Your task to perform on an android device: turn on the 24-hour format for clock Image 0: 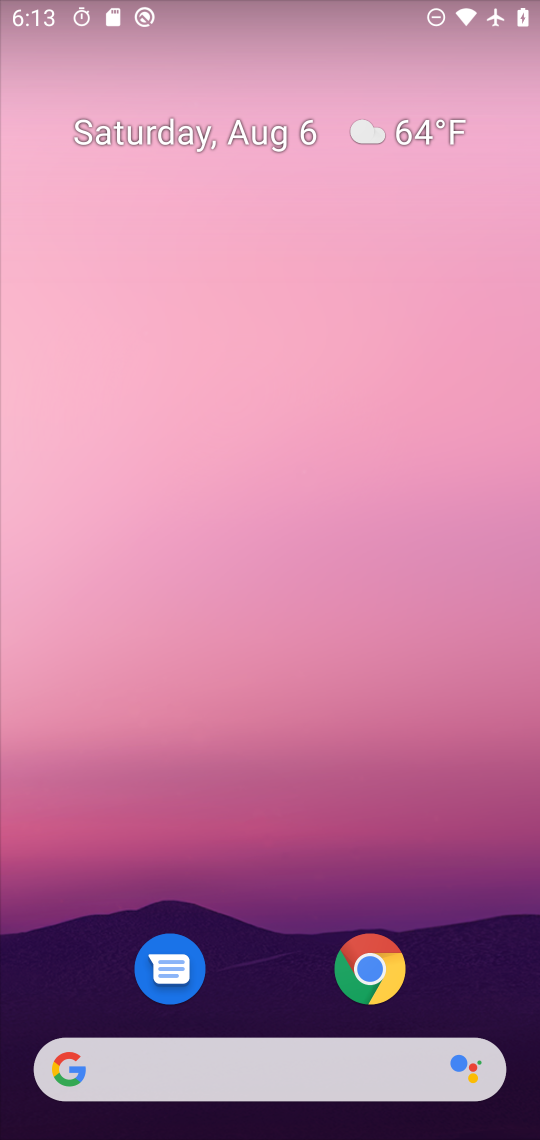
Step 0: press home button
Your task to perform on an android device: turn on the 24-hour format for clock Image 1: 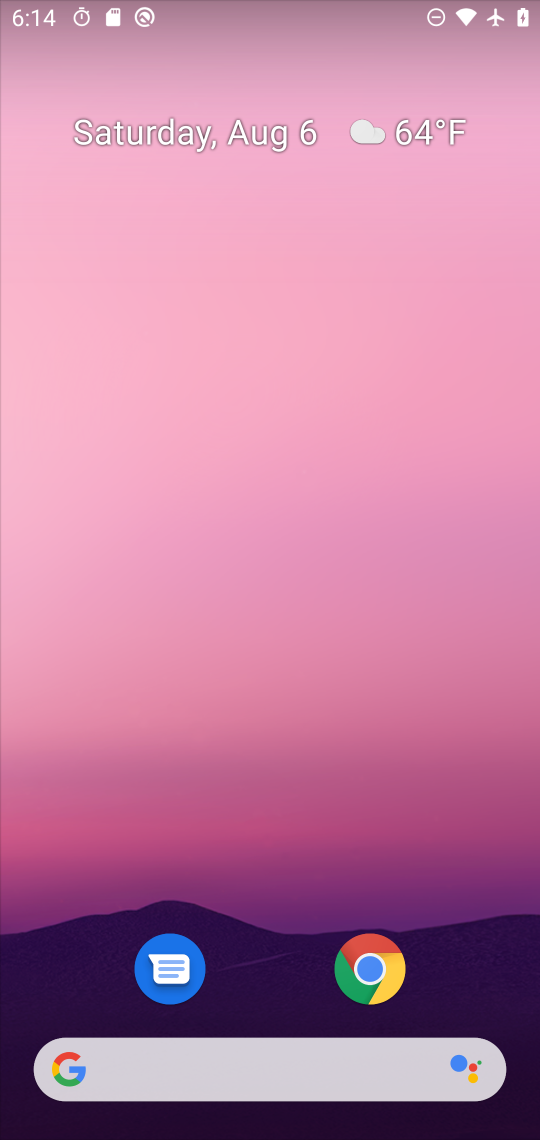
Step 1: press home button
Your task to perform on an android device: turn on the 24-hour format for clock Image 2: 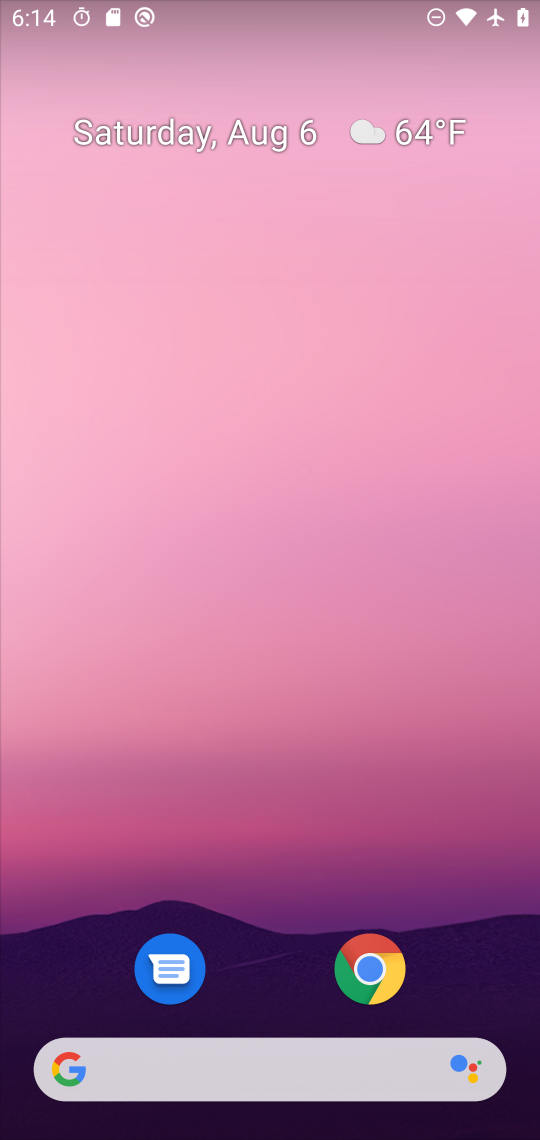
Step 2: drag from (314, 990) to (139, 137)
Your task to perform on an android device: turn on the 24-hour format for clock Image 3: 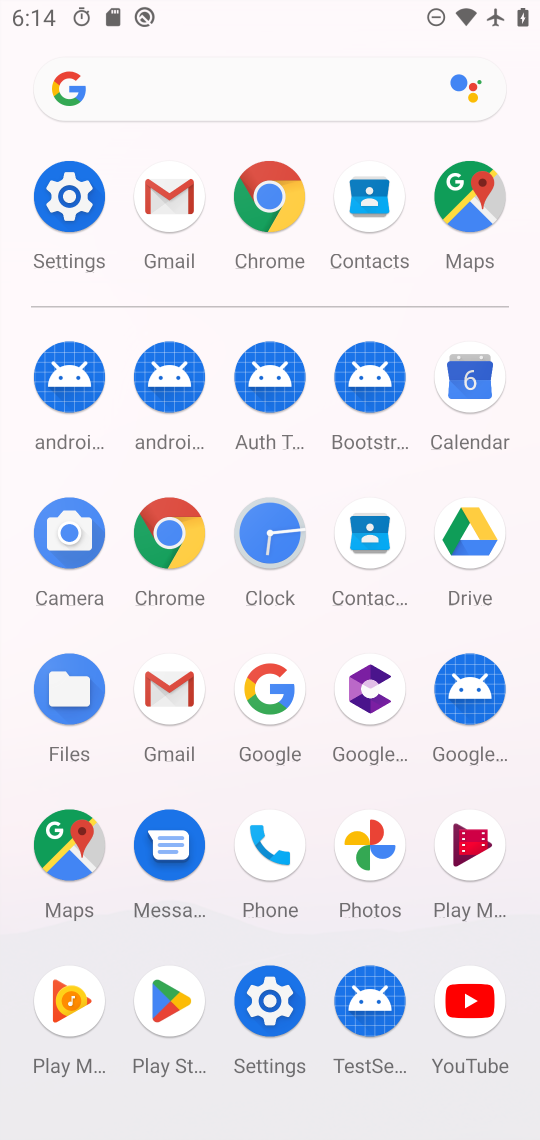
Step 3: click (69, 204)
Your task to perform on an android device: turn on the 24-hour format for clock Image 4: 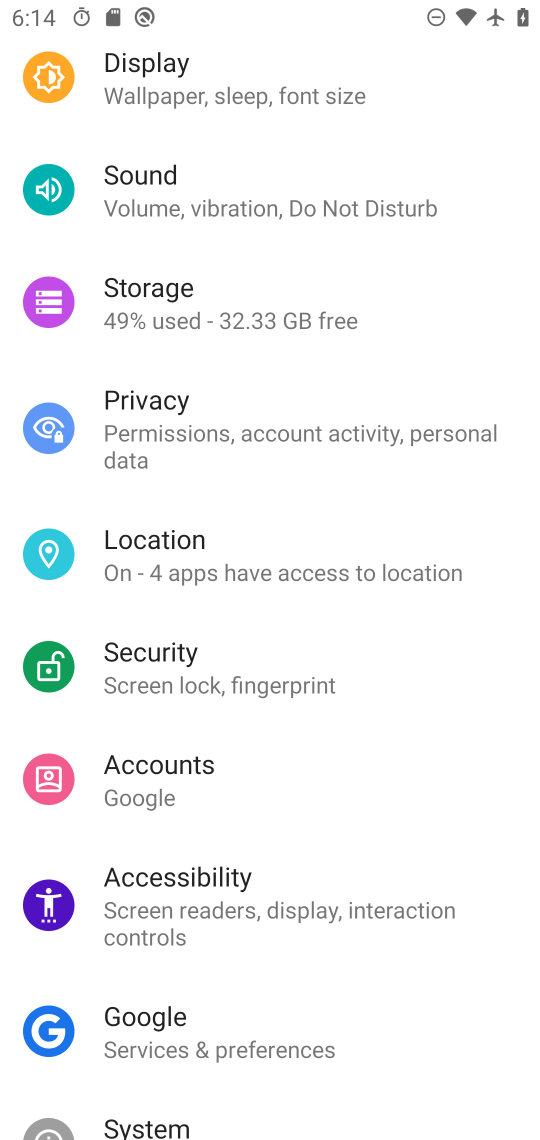
Step 4: click (143, 1128)
Your task to perform on an android device: turn on the 24-hour format for clock Image 5: 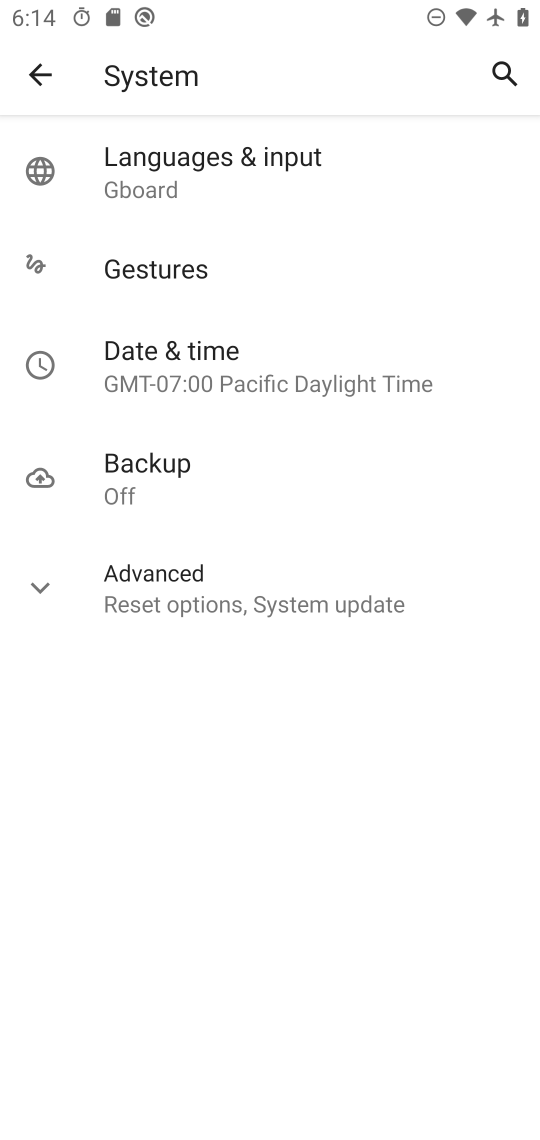
Step 5: click (194, 370)
Your task to perform on an android device: turn on the 24-hour format for clock Image 6: 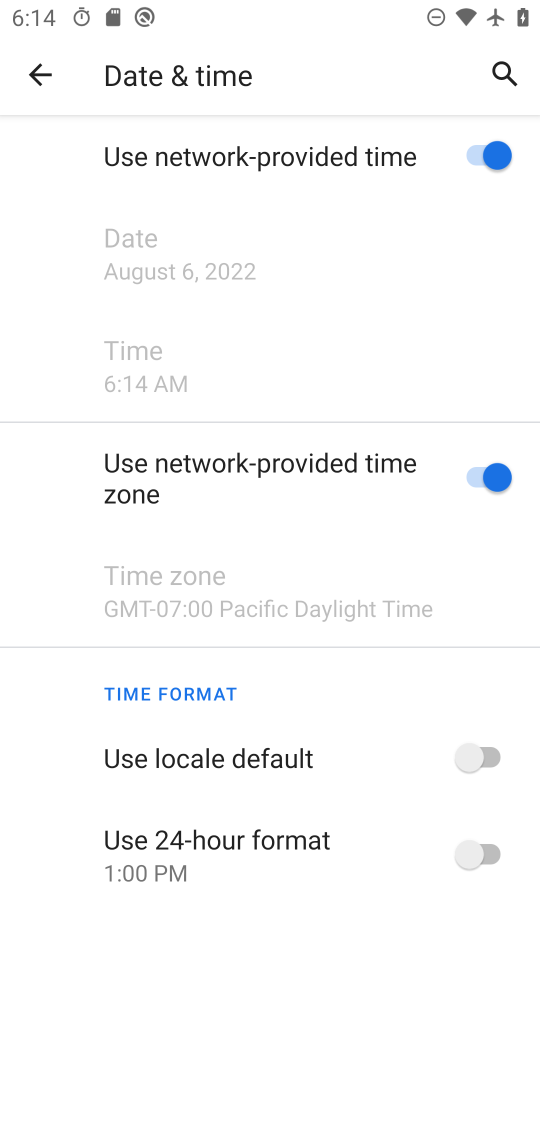
Step 6: click (470, 764)
Your task to perform on an android device: turn on the 24-hour format for clock Image 7: 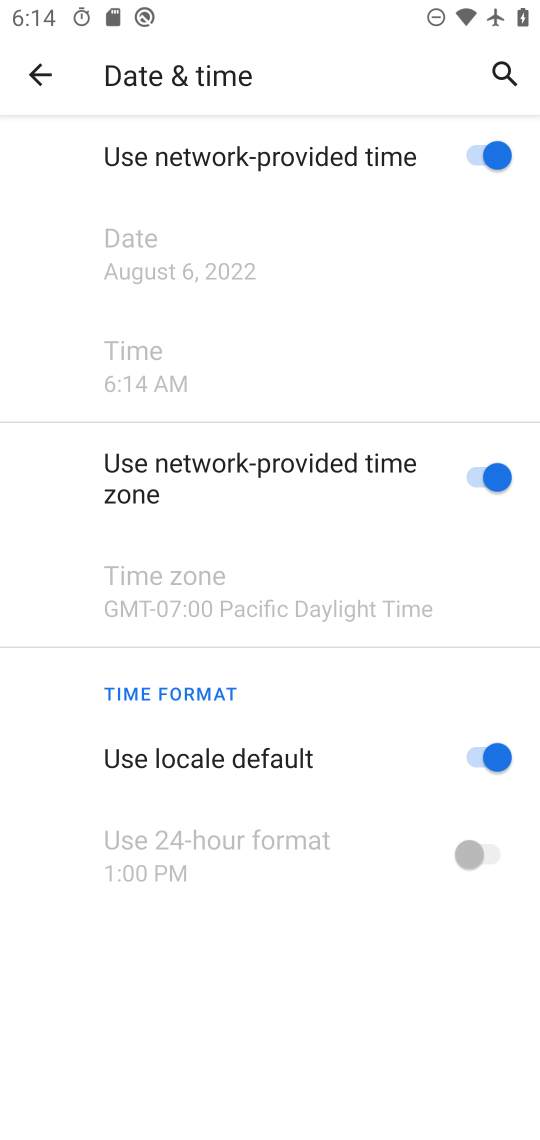
Step 7: task complete